Your task to perform on an android device: snooze an email in the gmail app Image 0: 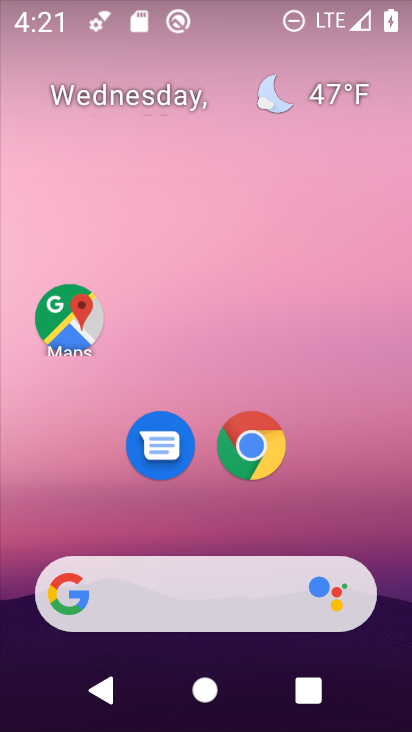
Step 0: drag from (270, 544) to (356, 42)
Your task to perform on an android device: snooze an email in the gmail app Image 1: 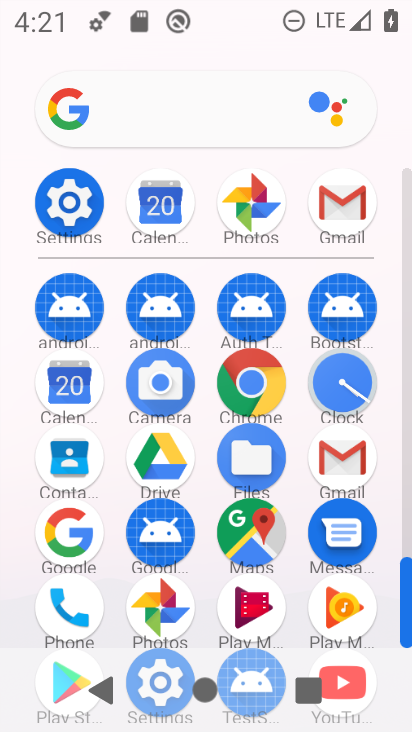
Step 1: click (342, 203)
Your task to perform on an android device: snooze an email in the gmail app Image 2: 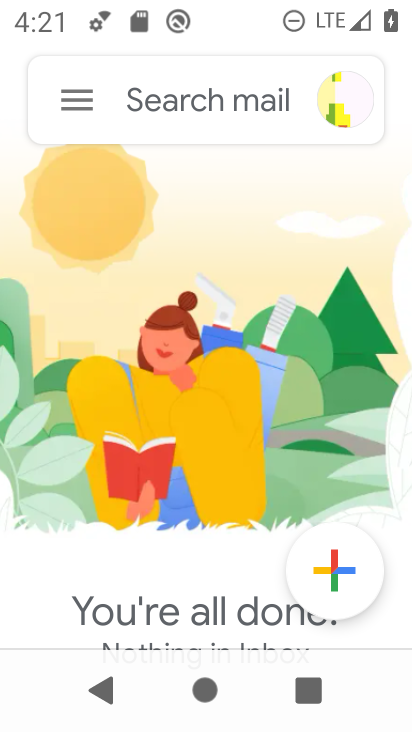
Step 2: click (71, 101)
Your task to perform on an android device: snooze an email in the gmail app Image 3: 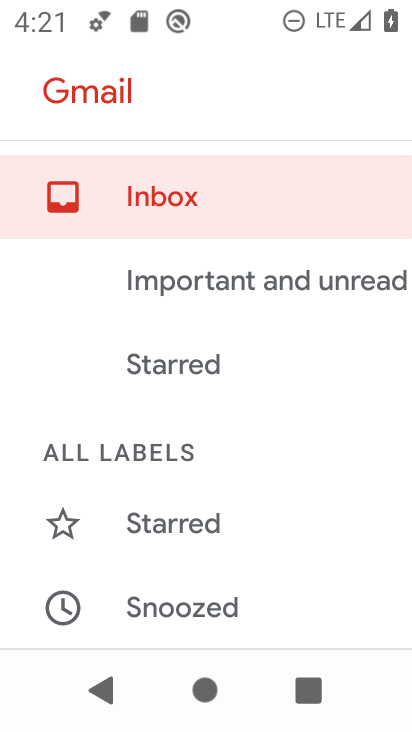
Step 3: drag from (199, 496) to (253, 315)
Your task to perform on an android device: snooze an email in the gmail app Image 4: 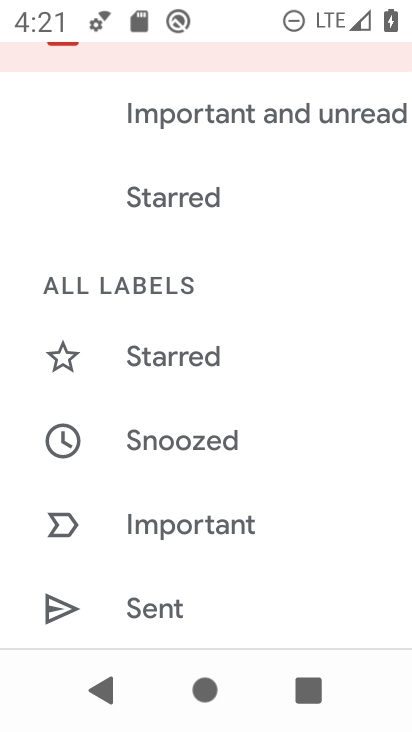
Step 4: drag from (232, 377) to (284, 243)
Your task to perform on an android device: snooze an email in the gmail app Image 5: 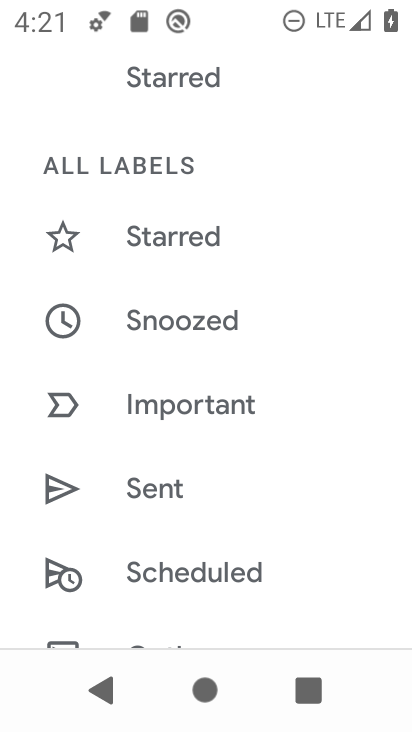
Step 5: drag from (211, 465) to (270, 331)
Your task to perform on an android device: snooze an email in the gmail app Image 6: 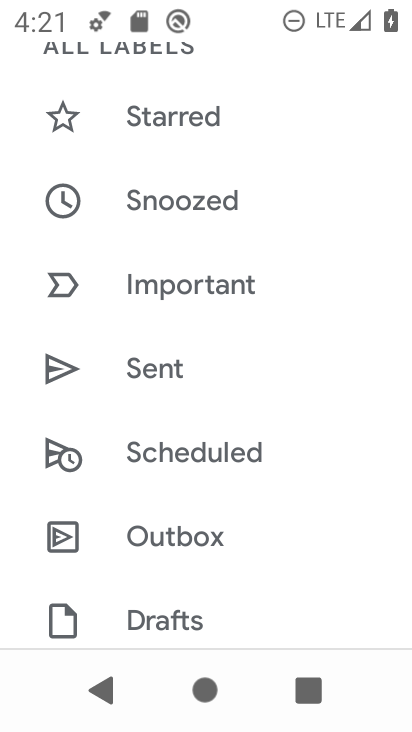
Step 6: drag from (221, 496) to (276, 339)
Your task to perform on an android device: snooze an email in the gmail app Image 7: 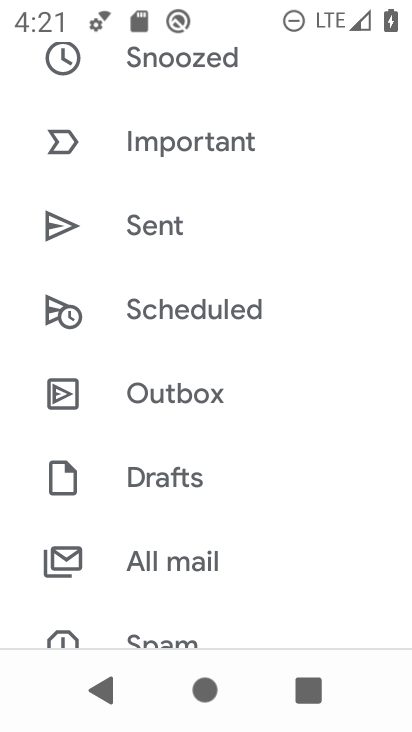
Step 7: drag from (239, 527) to (279, 407)
Your task to perform on an android device: snooze an email in the gmail app Image 8: 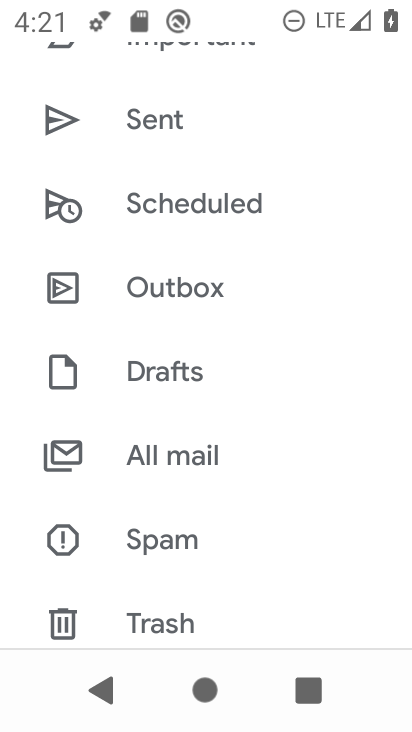
Step 8: click (187, 459)
Your task to perform on an android device: snooze an email in the gmail app Image 9: 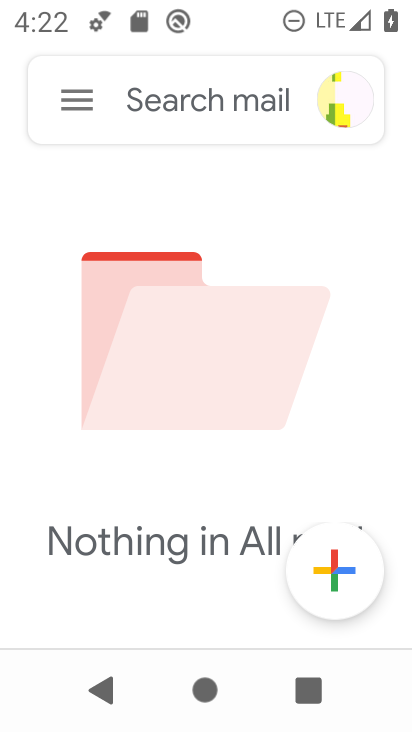
Step 9: task complete